Your task to perform on an android device: Go to calendar. Show me events next week Image 0: 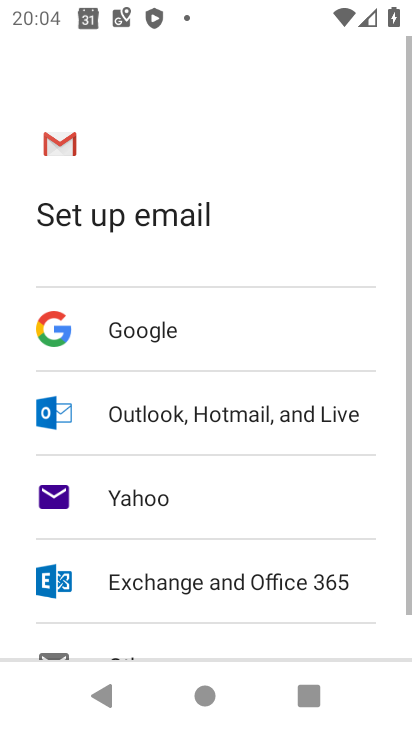
Step 0: press home button
Your task to perform on an android device: Go to calendar. Show me events next week Image 1: 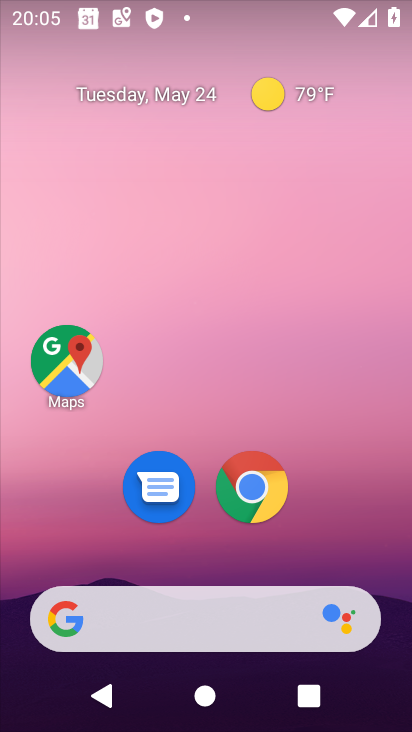
Step 1: drag from (18, 627) to (221, 170)
Your task to perform on an android device: Go to calendar. Show me events next week Image 2: 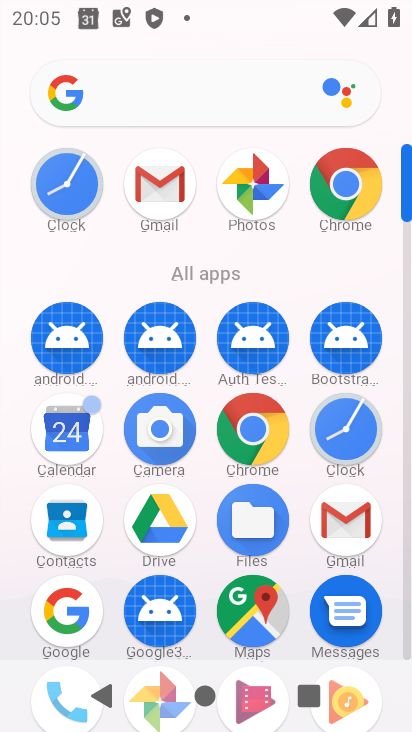
Step 2: click (61, 435)
Your task to perform on an android device: Go to calendar. Show me events next week Image 3: 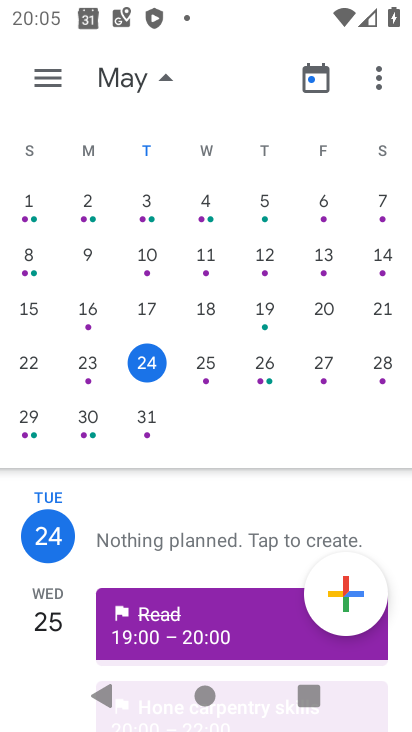
Step 3: click (84, 425)
Your task to perform on an android device: Go to calendar. Show me events next week Image 4: 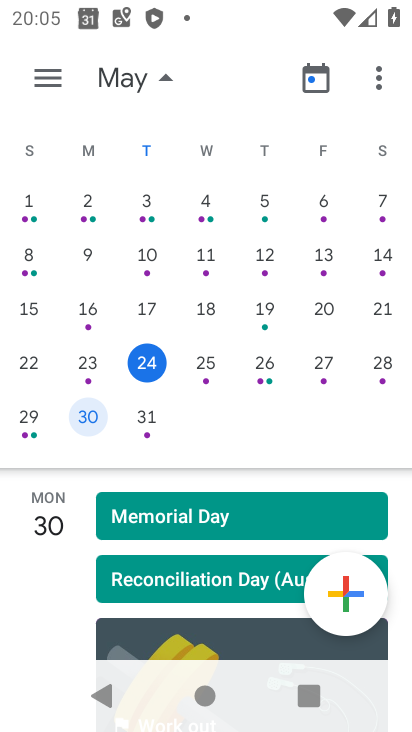
Step 4: task complete